Your task to perform on an android device: find photos in the google photos app Image 0: 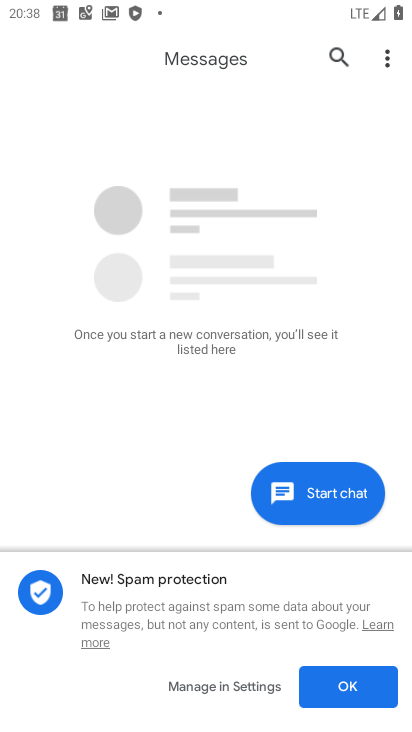
Step 0: press home button
Your task to perform on an android device: find photos in the google photos app Image 1: 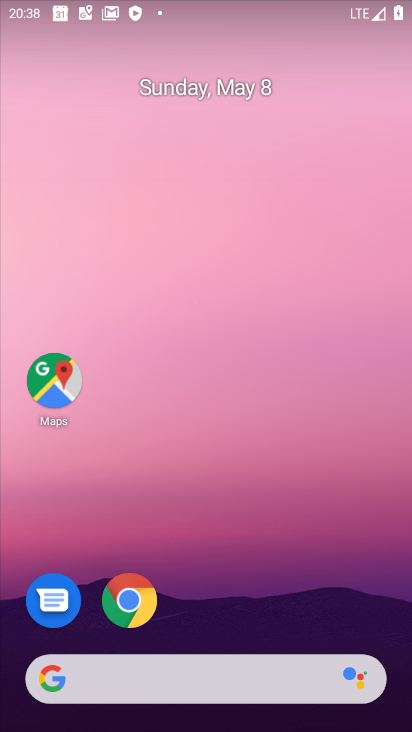
Step 1: drag from (193, 708) to (263, 231)
Your task to perform on an android device: find photos in the google photos app Image 2: 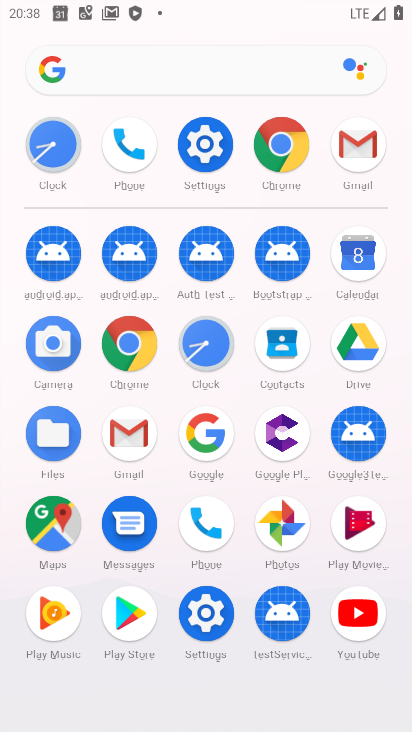
Step 2: click (278, 526)
Your task to perform on an android device: find photos in the google photos app Image 3: 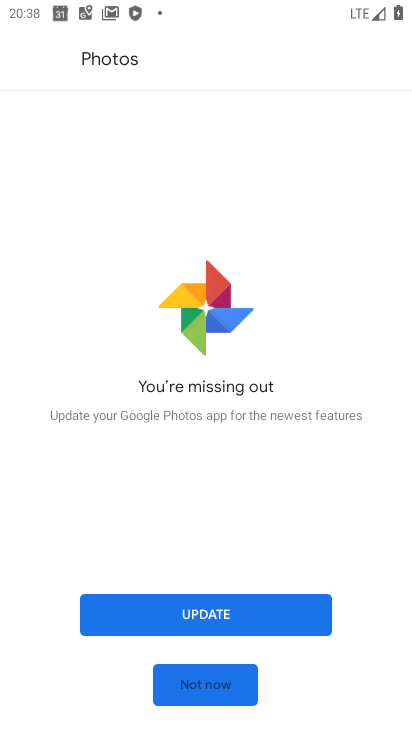
Step 3: click (236, 699)
Your task to perform on an android device: find photos in the google photos app Image 4: 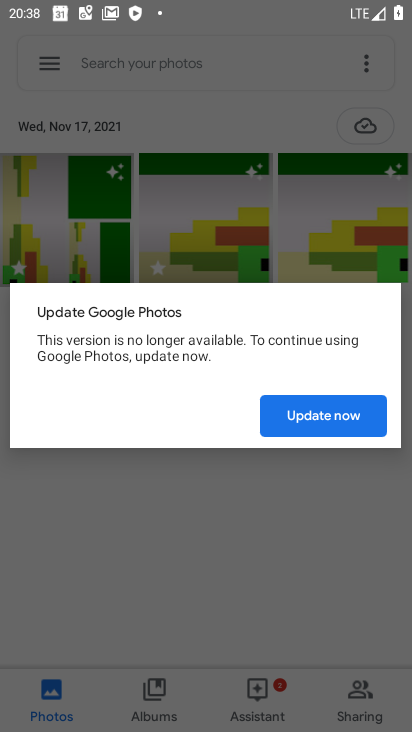
Step 4: click (320, 412)
Your task to perform on an android device: find photos in the google photos app Image 5: 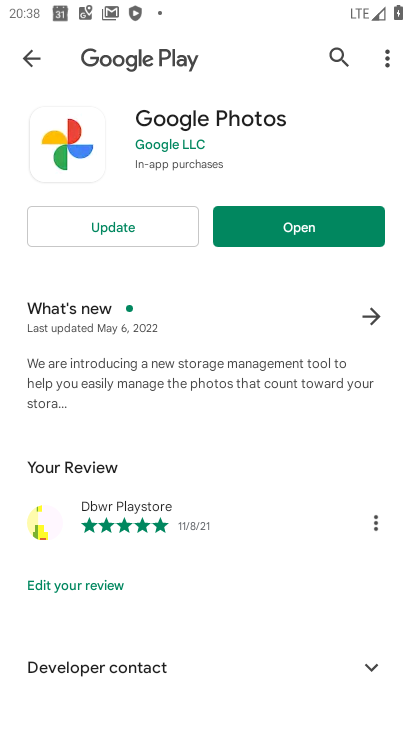
Step 5: click (292, 229)
Your task to perform on an android device: find photos in the google photos app Image 6: 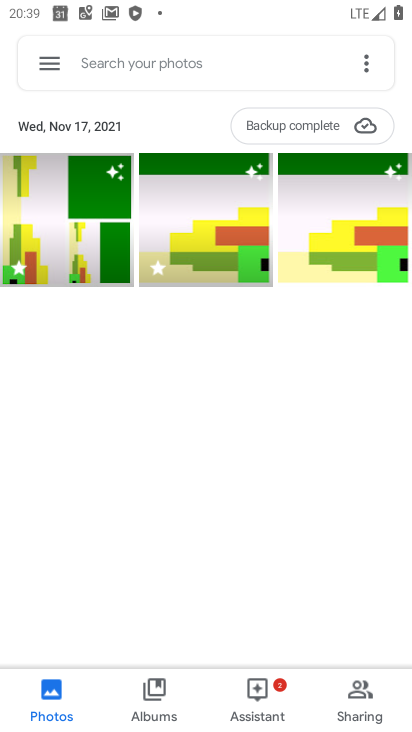
Step 6: task complete